Your task to perform on an android device: Open Amazon Image 0: 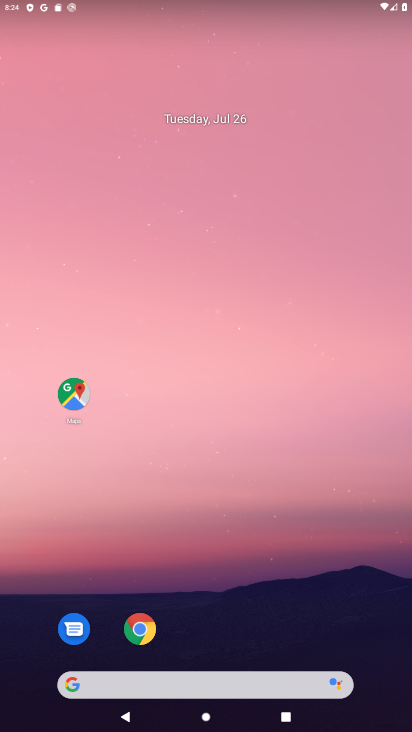
Step 0: press home button
Your task to perform on an android device: Open Amazon Image 1: 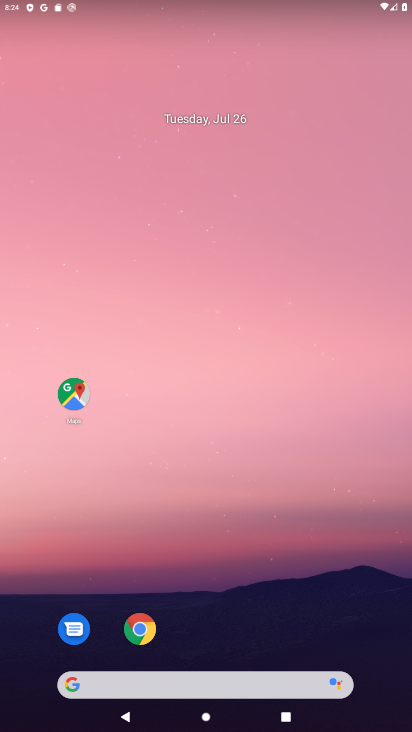
Step 1: click (131, 630)
Your task to perform on an android device: Open Amazon Image 2: 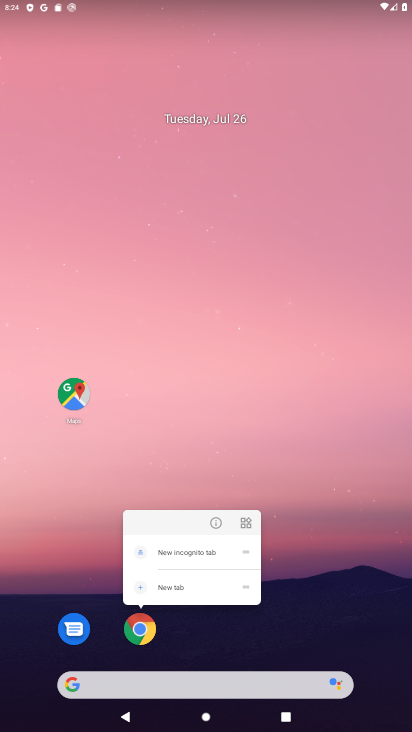
Step 2: click (135, 620)
Your task to perform on an android device: Open Amazon Image 3: 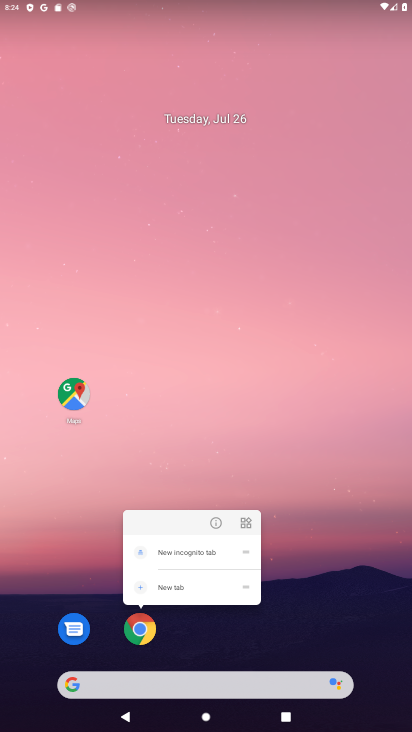
Step 3: click (141, 620)
Your task to perform on an android device: Open Amazon Image 4: 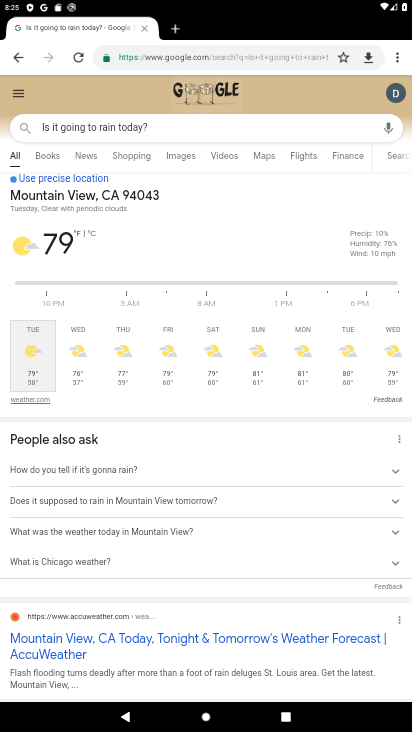
Step 4: click (155, 58)
Your task to perform on an android device: Open Amazon Image 5: 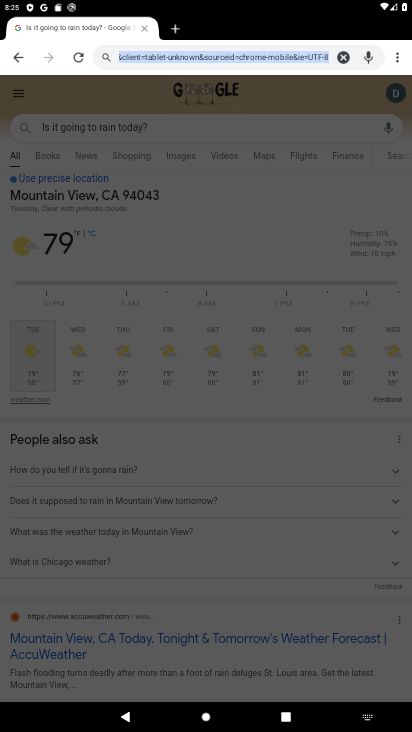
Step 5: type "Amazon"
Your task to perform on an android device: Open Amazon Image 6: 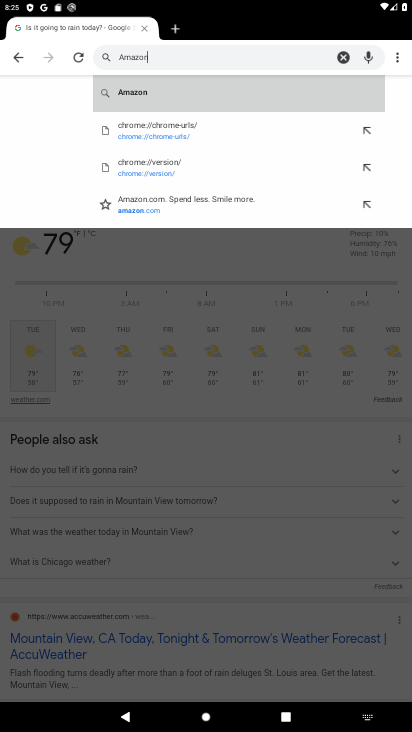
Step 6: type ""
Your task to perform on an android device: Open Amazon Image 7: 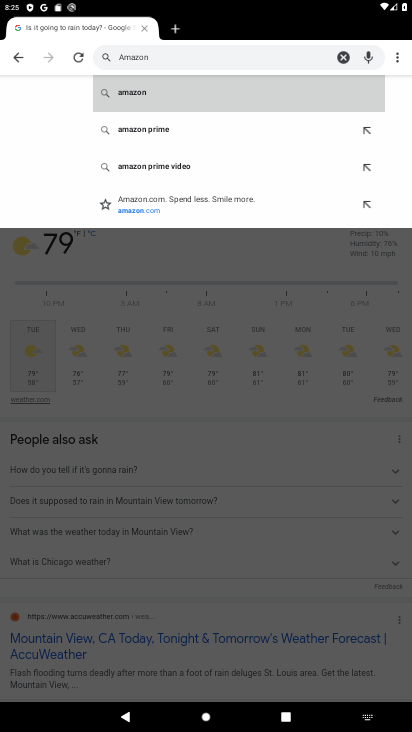
Step 7: click (176, 205)
Your task to perform on an android device: Open Amazon Image 8: 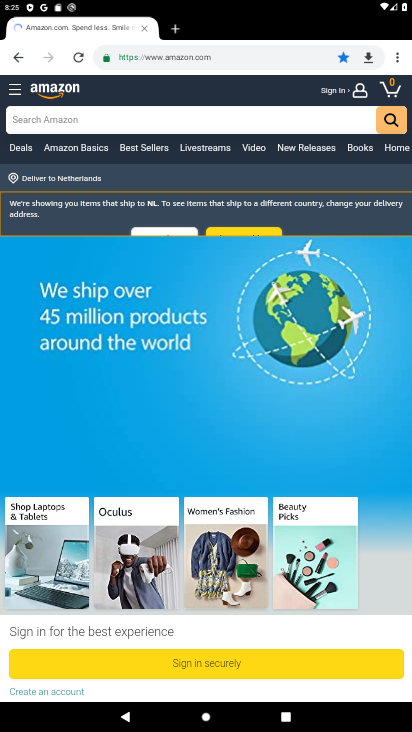
Step 8: task complete